Your task to perform on an android device: check android version Image 0: 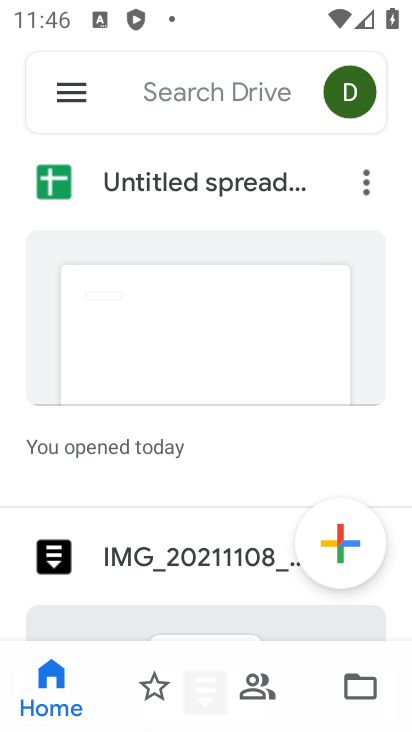
Step 0: press home button
Your task to perform on an android device: check android version Image 1: 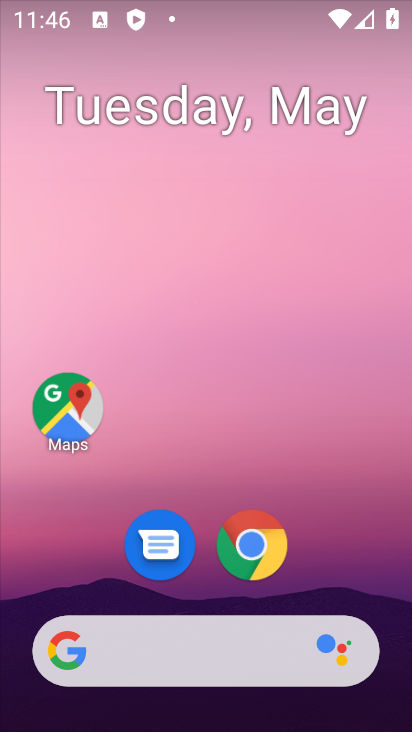
Step 1: drag from (204, 597) to (211, 179)
Your task to perform on an android device: check android version Image 2: 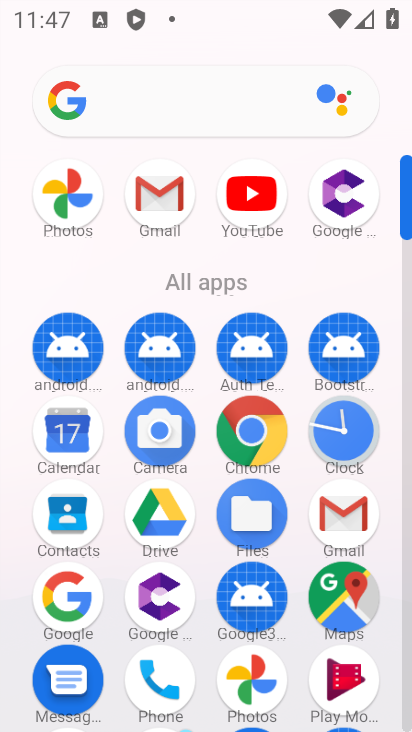
Step 2: drag from (205, 571) to (208, 229)
Your task to perform on an android device: check android version Image 3: 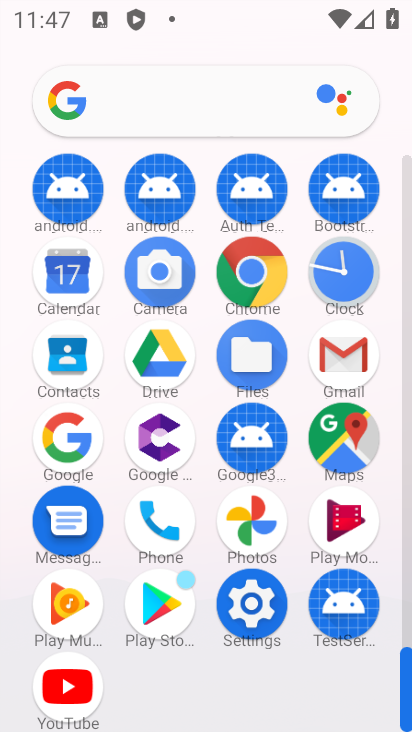
Step 3: click (252, 594)
Your task to perform on an android device: check android version Image 4: 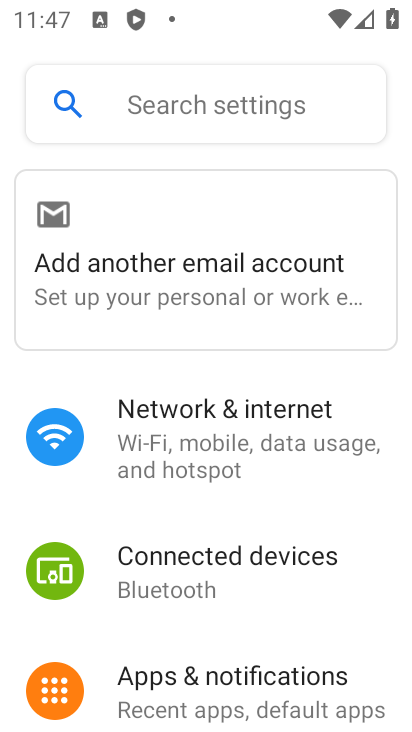
Step 4: drag from (230, 605) to (328, 108)
Your task to perform on an android device: check android version Image 5: 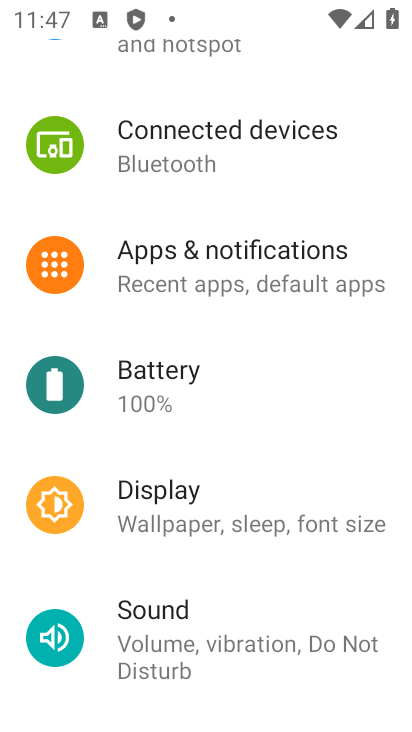
Step 5: drag from (172, 663) to (288, 217)
Your task to perform on an android device: check android version Image 6: 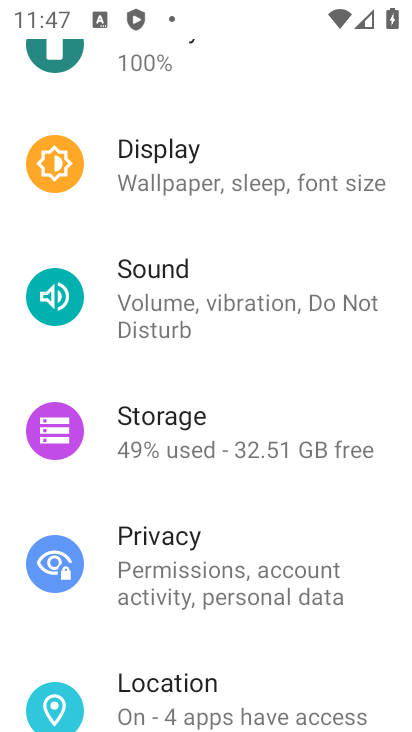
Step 6: drag from (215, 649) to (303, 224)
Your task to perform on an android device: check android version Image 7: 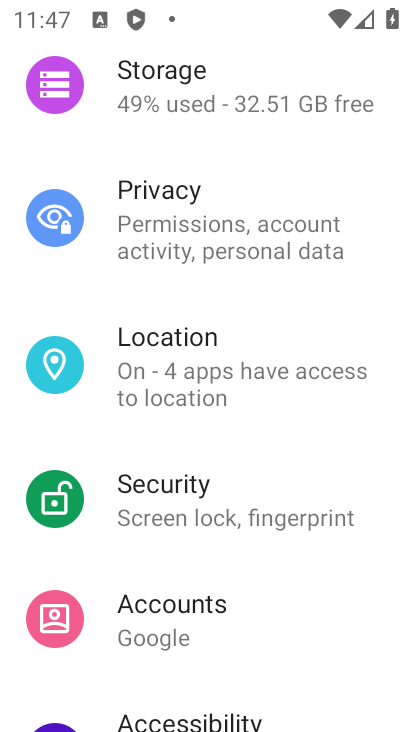
Step 7: drag from (262, 591) to (313, 90)
Your task to perform on an android device: check android version Image 8: 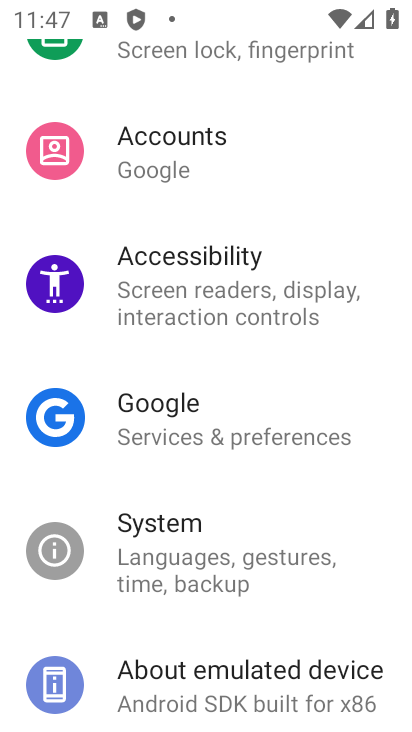
Step 8: drag from (266, 578) to (305, 217)
Your task to perform on an android device: check android version Image 9: 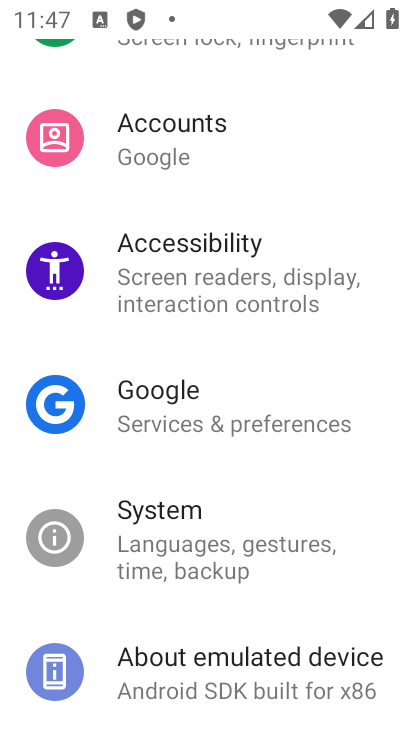
Step 9: click (176, 679)
Your task to perform on an android device: check android version Image 10: 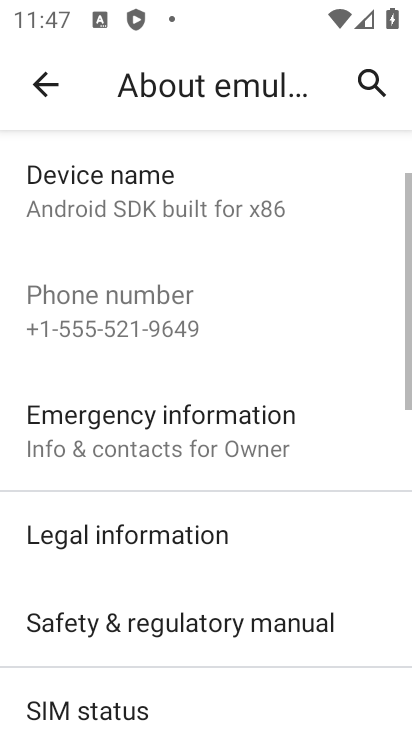
Step 10: drag from (169, 589) to (255, 100)
Your task to perform on an android device: check android version Image 11: 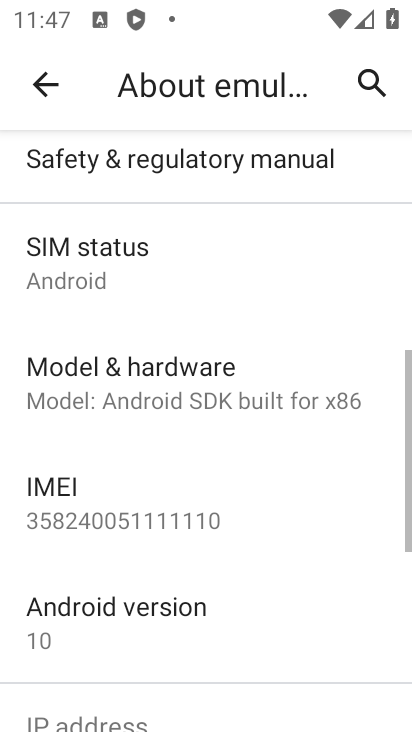
Step 11: drag from (167, 549) to (228, 325)
Your task to perform on an android device: check android version Image 12: 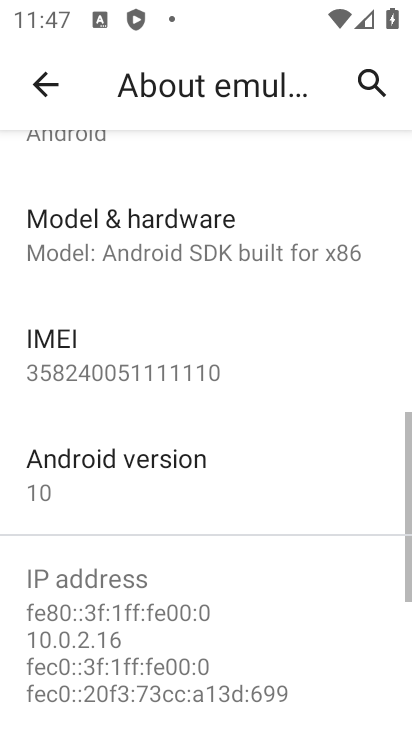
Step 12: click (97, 472)
Your task to perform on an android device: check android version Image 13: 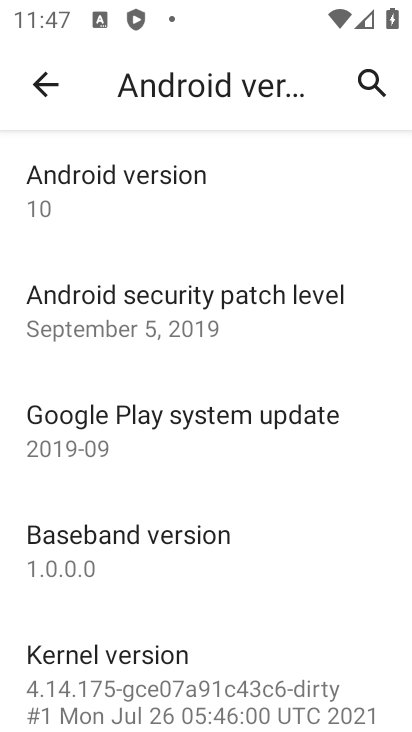
Step 13: task complete